Your task to perform on an android device: turn on priority inbox in the gmail app Image 0: 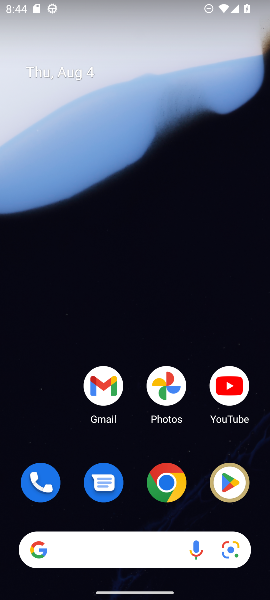
Step 0: press home button
Your task to perform on an android device: turn on priority inbox in the gmail app Image 1: 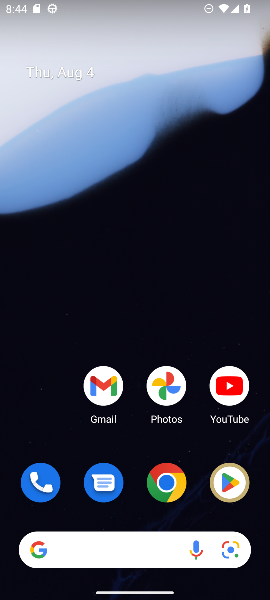
Step 1: click (143, 446)
Your task to perform on an android device: turn on priority inbox in the gmail app Image 2: 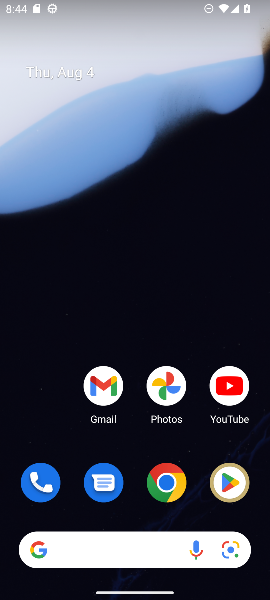
Step 2: click (102, 380)
Your task to perform on an android device: turn on priority inbox in the gmail app Image 3: 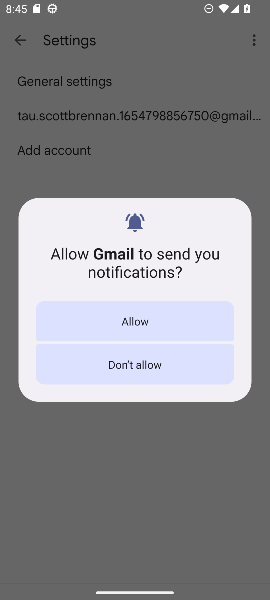
Step 3: click (130, 327)
Your task to perform on an android device: turn on priority inbox in the gmail app Image 4: 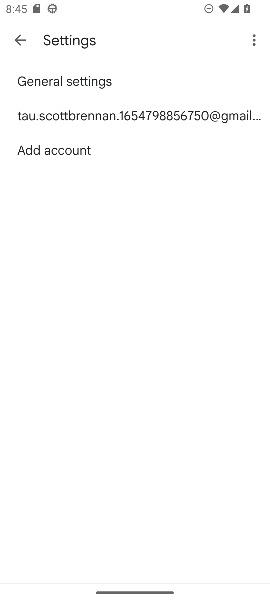
Step 4: click (65, 119)
Your task to perform on an android device: turn on priority inbox in the gmail app Image 5: 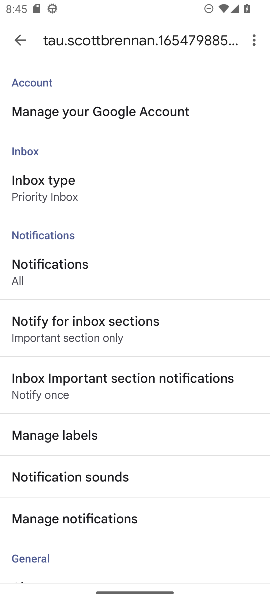
Step 5: click (70, 186)
Your task to perform on an android device: turn on priority inbox in the gmail app Image 6: 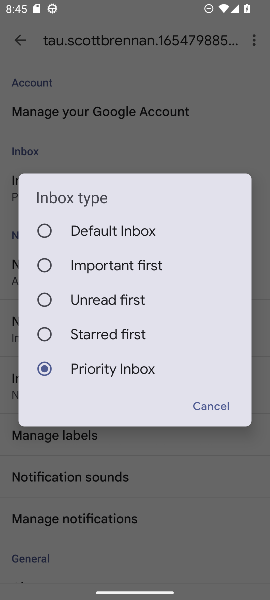
Step 6: click (149, 367)
Your task to perform on an android device: turn on priority inbox in the gmail app Image 7: 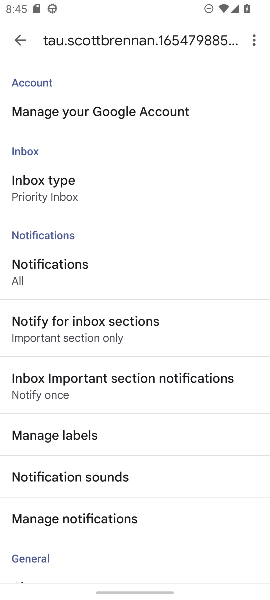
Step 7: task complete